Your task to perform on an android device: open the mobile data screen to see how much data has been used Image 0: 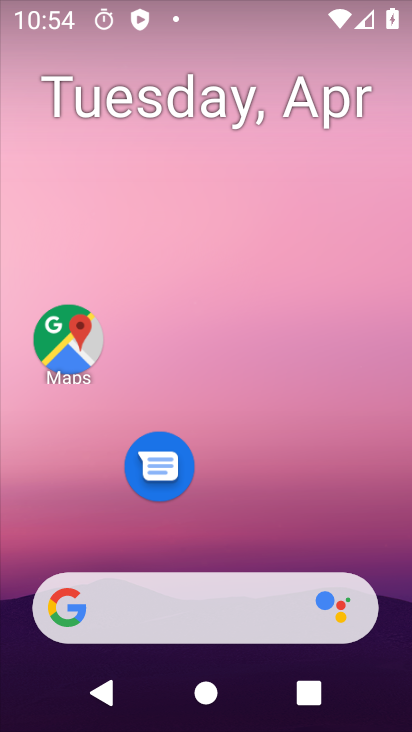
Step 0: drag from (345, 553) to (331, 104)
Your task to perform on an android device: open the mobile data screen to see how much data has been used Image 1: 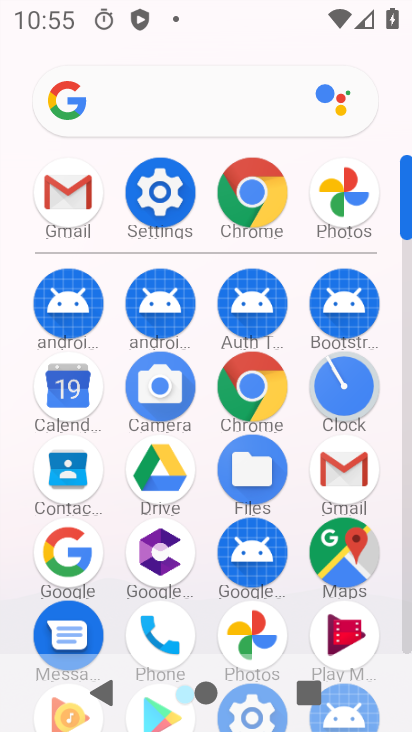
Step 1: click (158, 229)
Your task to perform on an android device: open the mobile data screen to see how much data has been used Image 2: 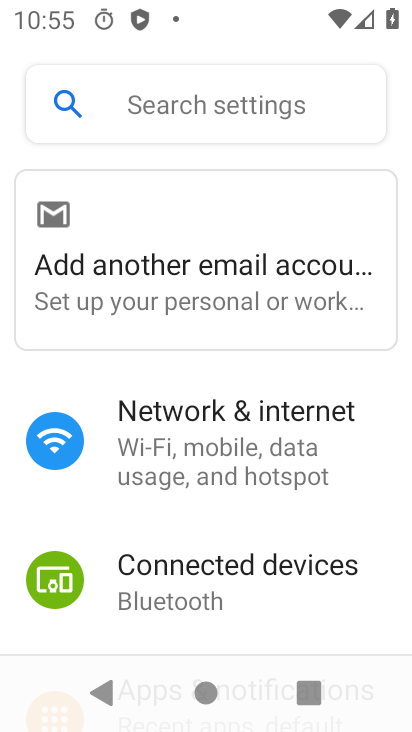
Step 2: drag from (185, 461) to (192, 244)
Your task to perform on an android device: open the mobile data screen to see how much data has been used Image 3: 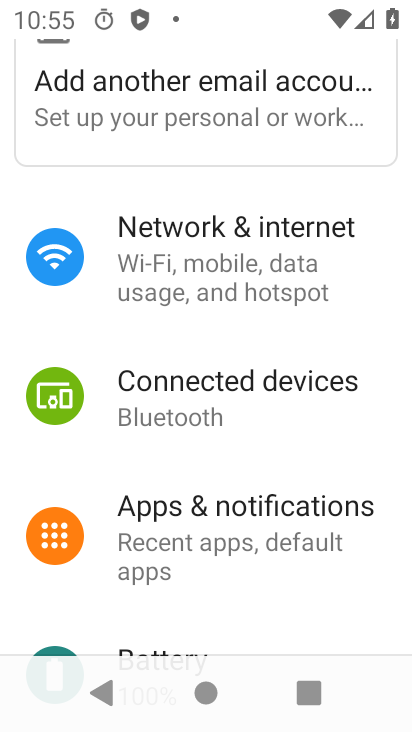
Step 3: drag from (48, 560) to (86, 412)
Your task to perform on an android device: open the mobile data screen to see how much data has been used Image 4: 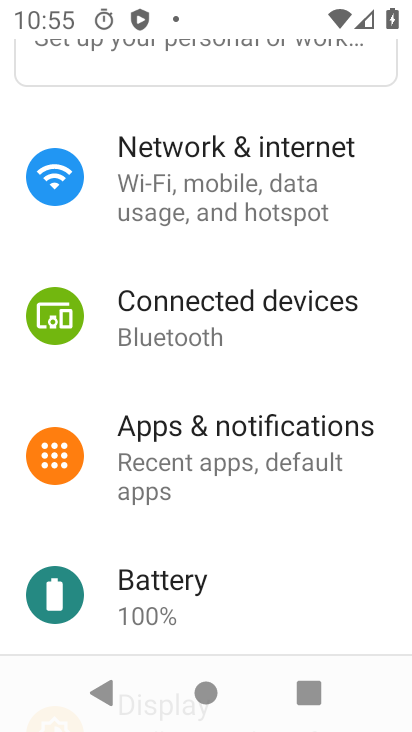
Step 4: click (184, 145)
Your task to perform on an android device: open the mobile data screen to see how much data has been used Image 5: 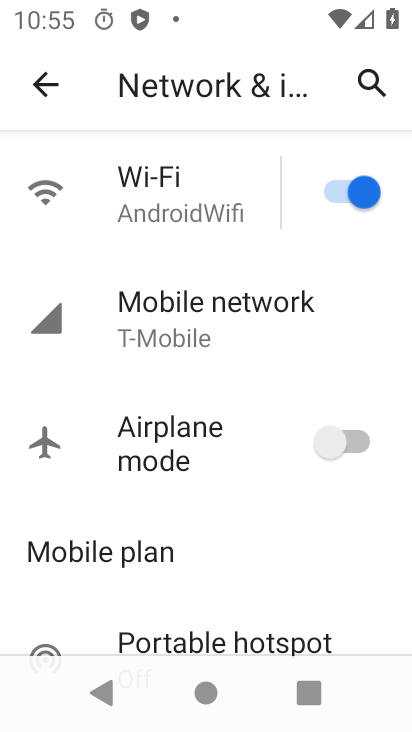
Step 5: click (192, 320)
Your task to perform on an android device: open the mobile data screen to see how much data has been used Image 6: 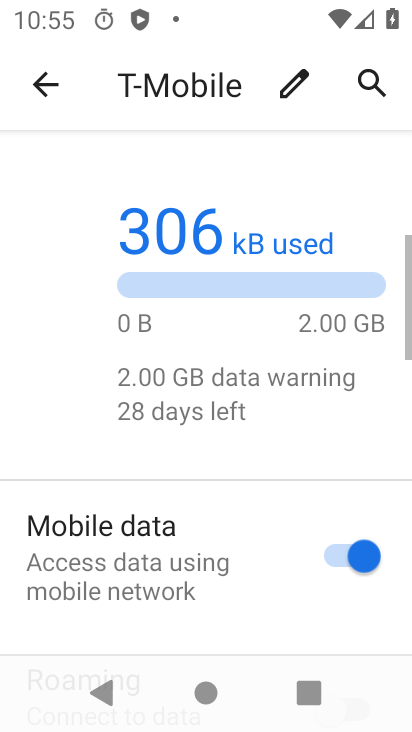
Step 6: task complete